Your task to perform on an android device: toggle javascript in the chrome app Image 0: 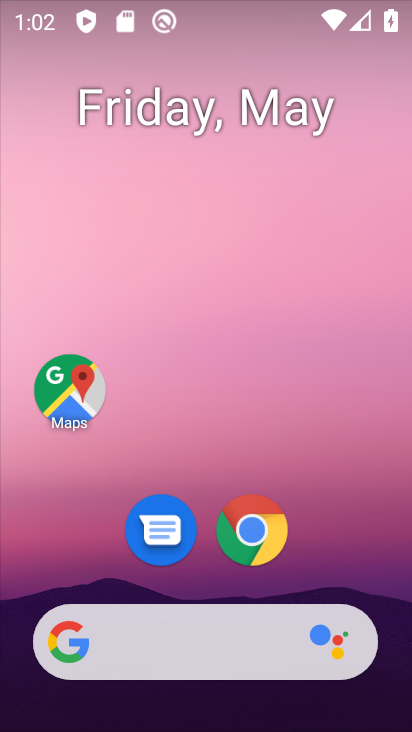
Step 0: click (269, 533)
Your task to perform on an android device: toggle javascript in the chrome app Image 1: 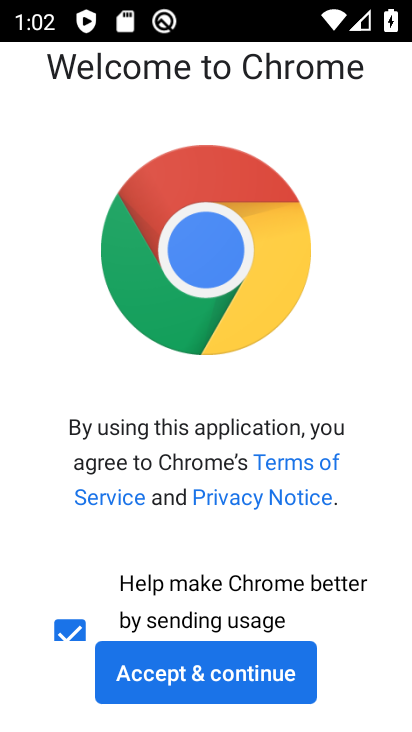
Step 1: click (187, 684)
Your task to perform on an android device: toggle javascript in the chrome app Image 2: 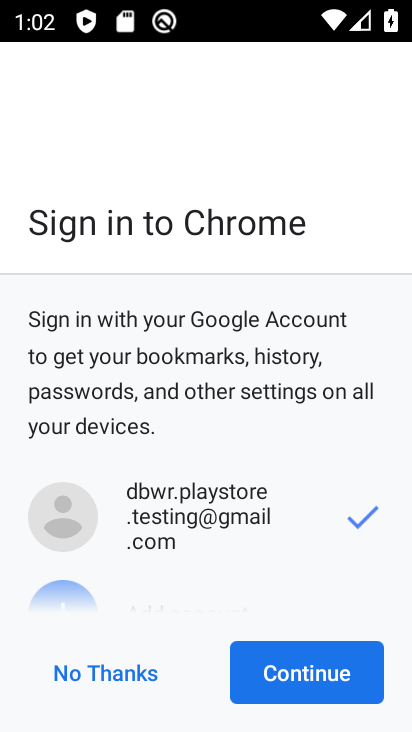
Step 2: click (341, 685)
Your task to perform on an android device: toggle javascript in the chrome app Image 3: 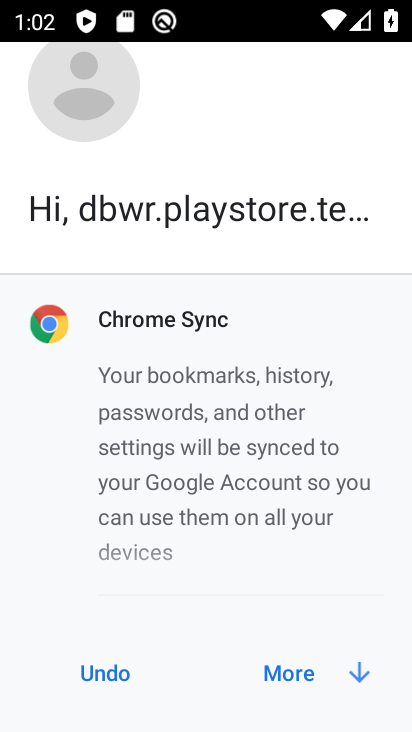
Step 3: click (320, 684)
Your task to perform on an android device: toggle javascript in the chrome app Image 4: 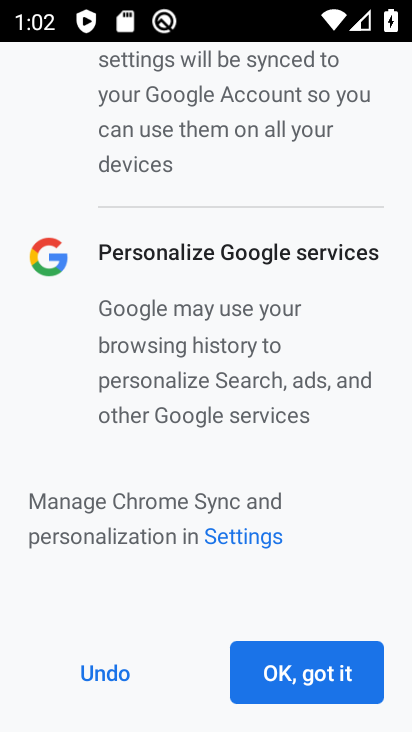
Step 4: click (310, 687)
Your task to perform on an android device: toggle javascript in the chrome app Image 5: 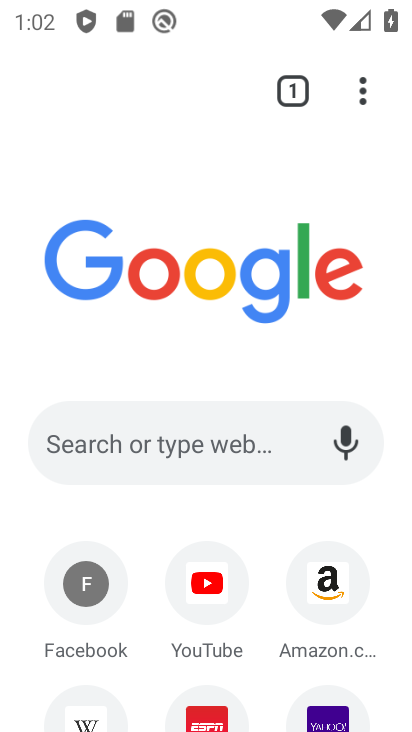
Step 5: click (362, 91)
Your task to perform on an android device: toggle javascript in the chrome app Image 6: 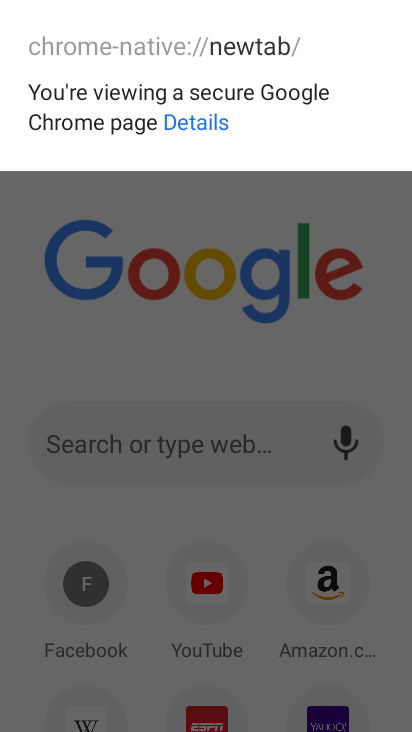
Step 6: click (270, 347)
Your task to perform on an android device: toggle javascript in the chrome app Image 7: 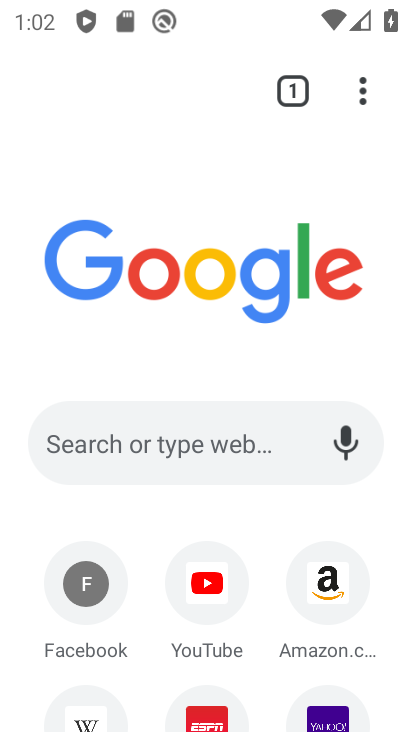
Step 7: click (405, 108)
Your task to perform on an android device: toggle javascript in the chrome app Image 8: 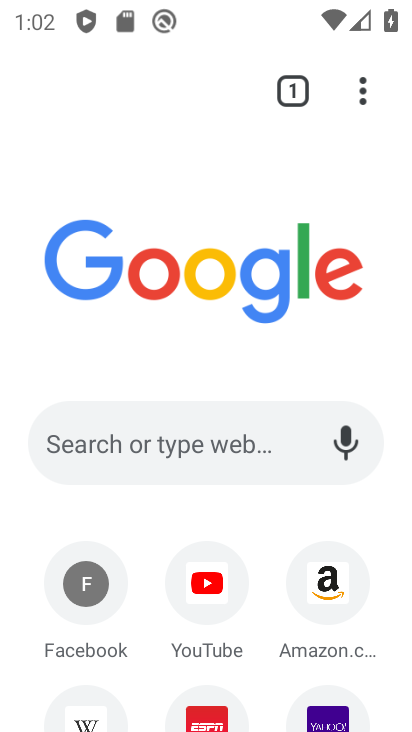
Step 8: click (397, 94)
Your task to perform on an android device: toggle javascript in the chrome app Image 9: 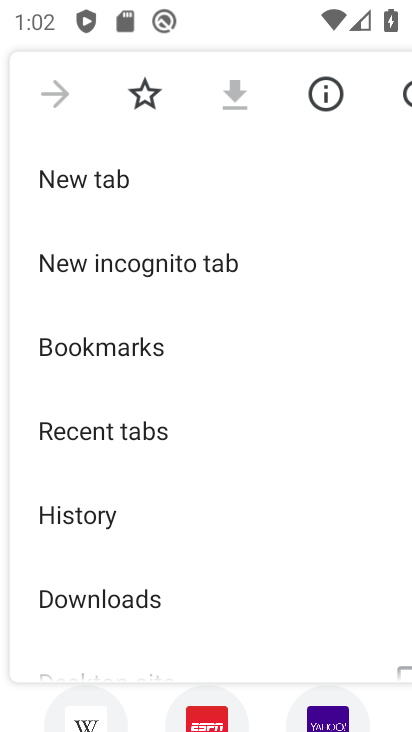
Step 9: drag from (171, 595) to (197, 222)
Your task to perform on an android device: toggle javascript in the chrome app Image 10: 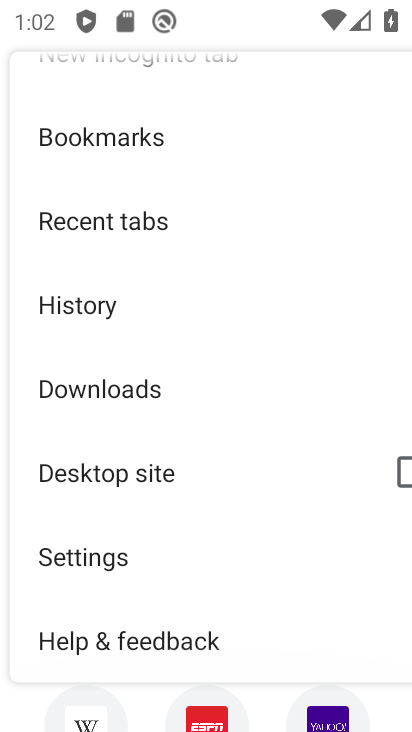
Step 10: click (139, 545)
Your task to perform on an android device: toggle javascript in the chrome app Image 11: 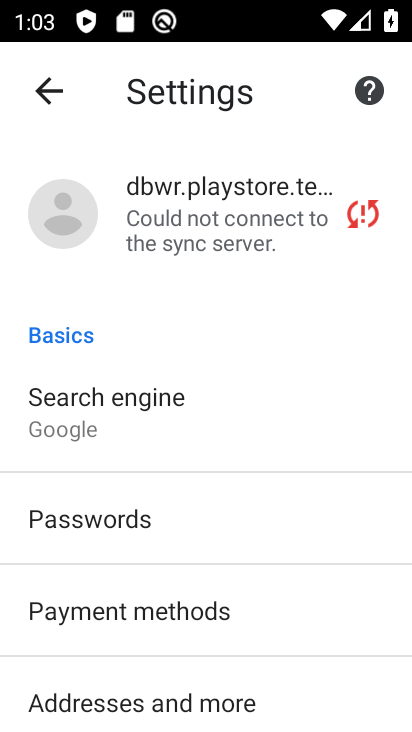
Step 11: drag from (156, 638) to (171, 165)
Your task to perform on an android device: toggle javascript in the chrome app Image 12: 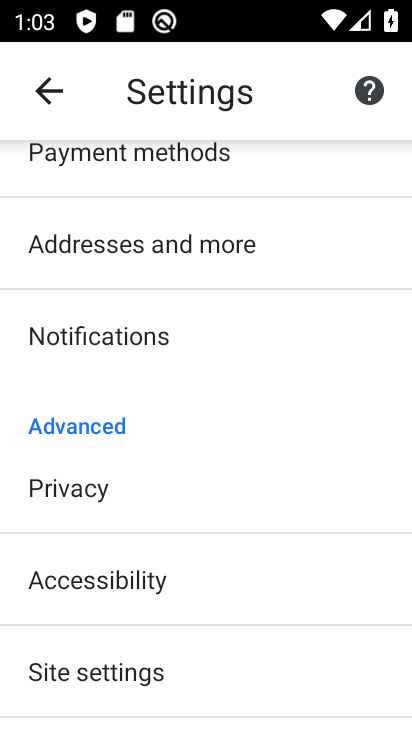
Step 12: click (60, 672)
Your task to perform on an android device: toggle javascript in the chrome app Image 13: 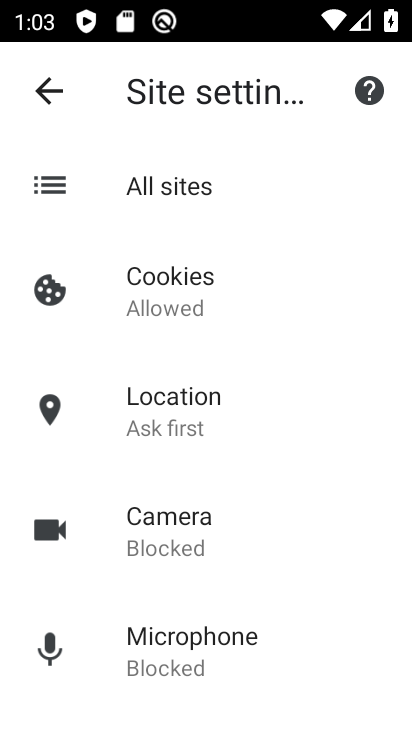
Step 13: drag from (180, 641) to (184, 291)
Your task to perform on an android device: toggle javascript in the chrome app Image 14: 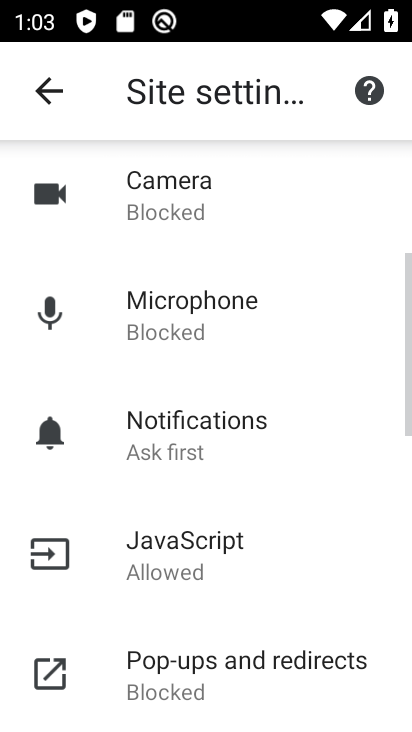
Step 14: click (186, 564)
Your task to perform on an android device: toggle javascript in the chrome app Image 15: 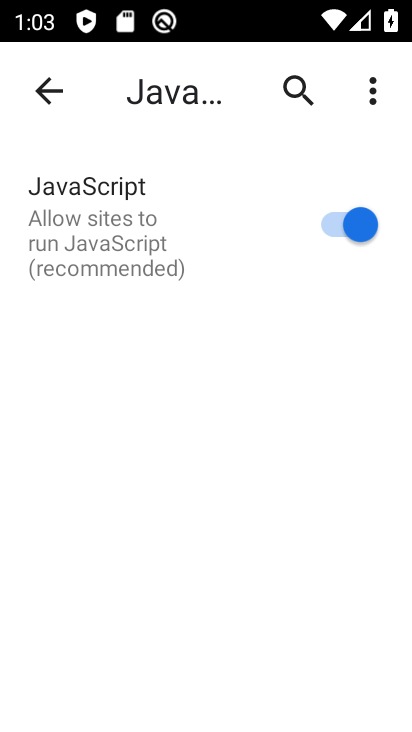
Step 15: click (315, 232)
Your task to perform on an android device: toggle javascript in the chrome app Image 16: 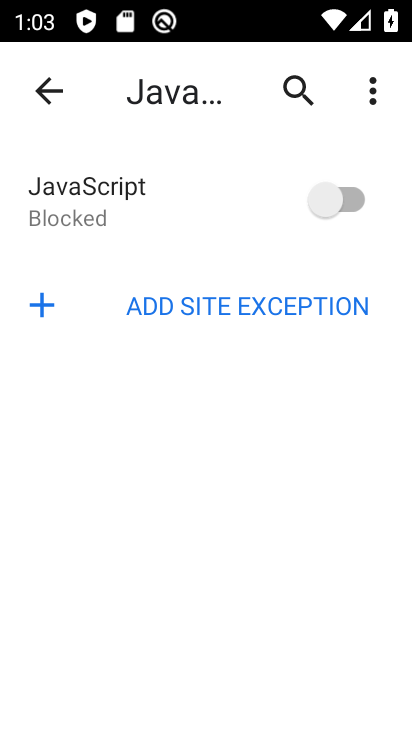
Step 16: task complete